Your task to perform on an android device: Open Wikipedia Image 0: 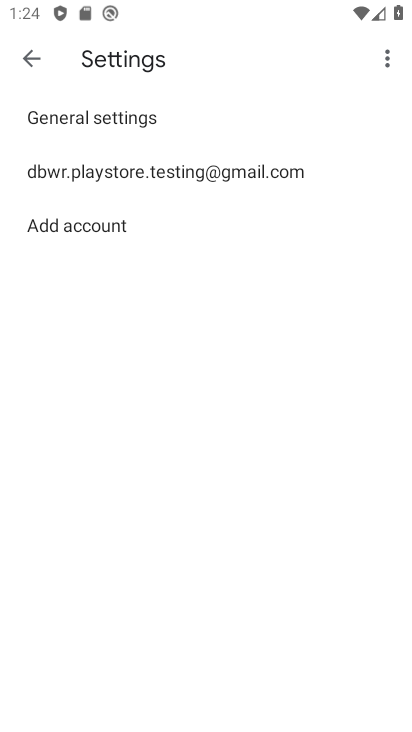
Step 0: press home button
Your task to perform on an android device: Open Wikipedia Image 1: 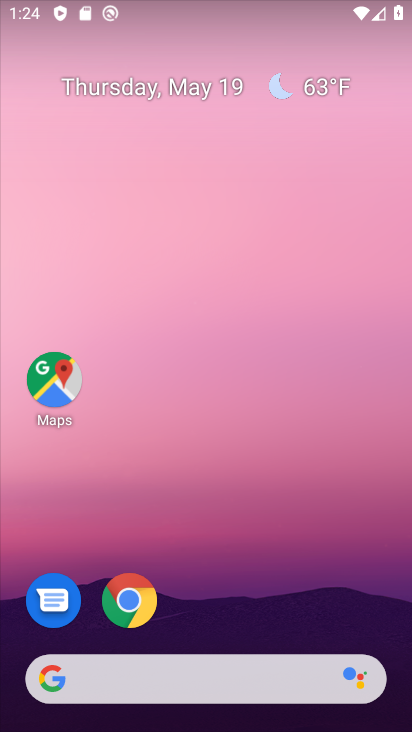
Step 1: click (130, 593)
Your task to perform on an android device: Open Wikipedia Image 2: 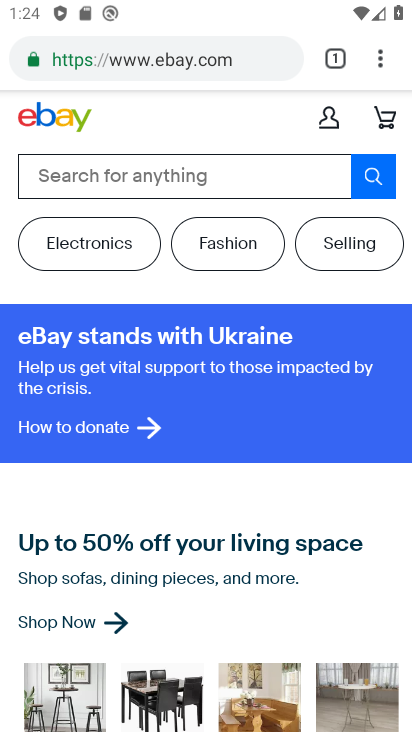
Step 2: click (326, 55)
Your task to perform on an android device: Open Wikipedia Image 3: 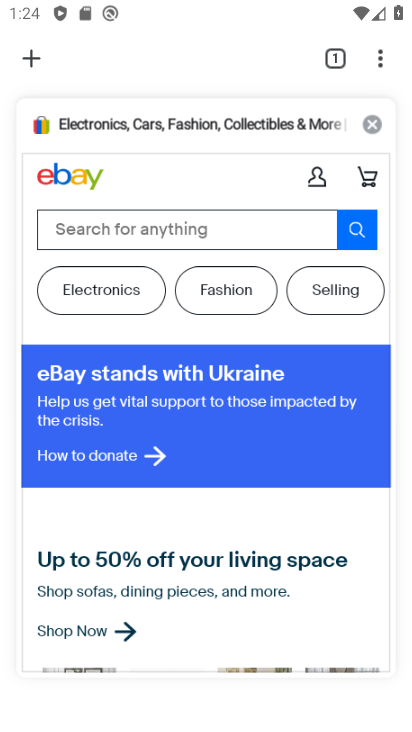
Step 3: click (366, 117)
Your task to perform on an android device: Open Wikipedia Image 4: 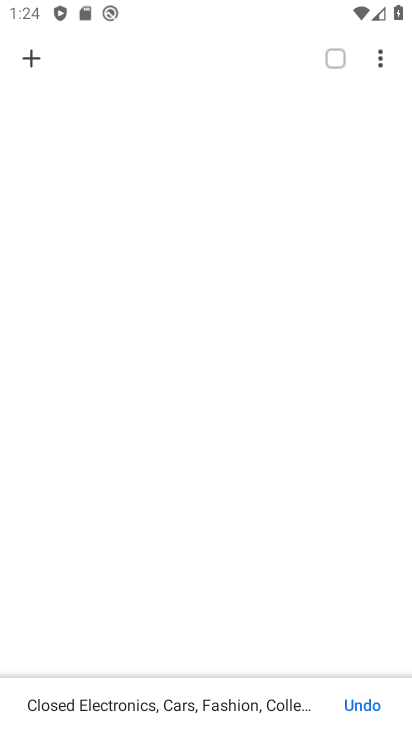
Step 4: click (32, 59)
Your task to perform on an android device: Open Wikipedia Image 5: 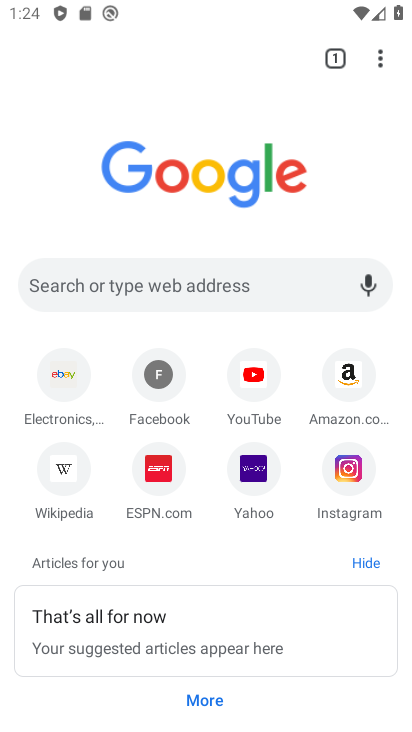
Step 5: click (70, 479)
Your task to perform on an android device: Open Wikipedia Image 6: 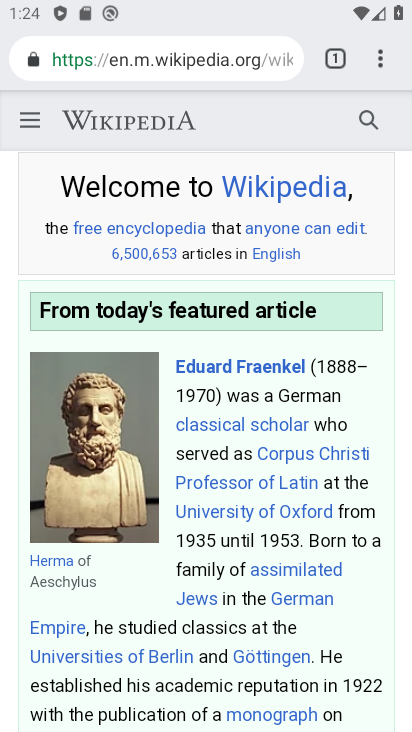
Step 6: task complete